Your task to perform on an android device: see sites visited before in the chrome app Image 0: 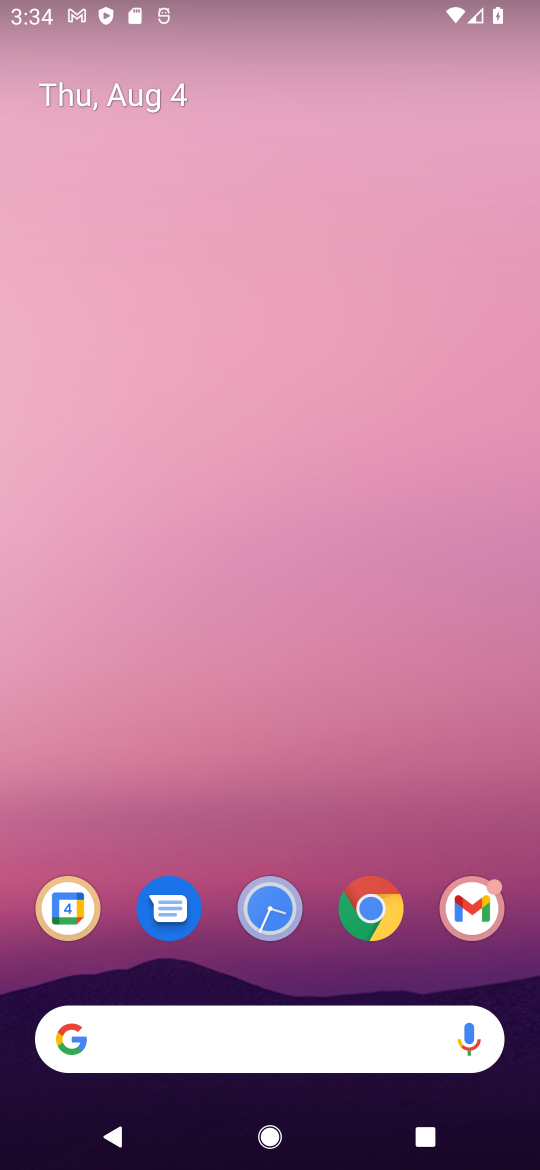
Step 0: click (380, 906)
Your task to perform on an android device: see sites visited before in the chrome app Image 1: 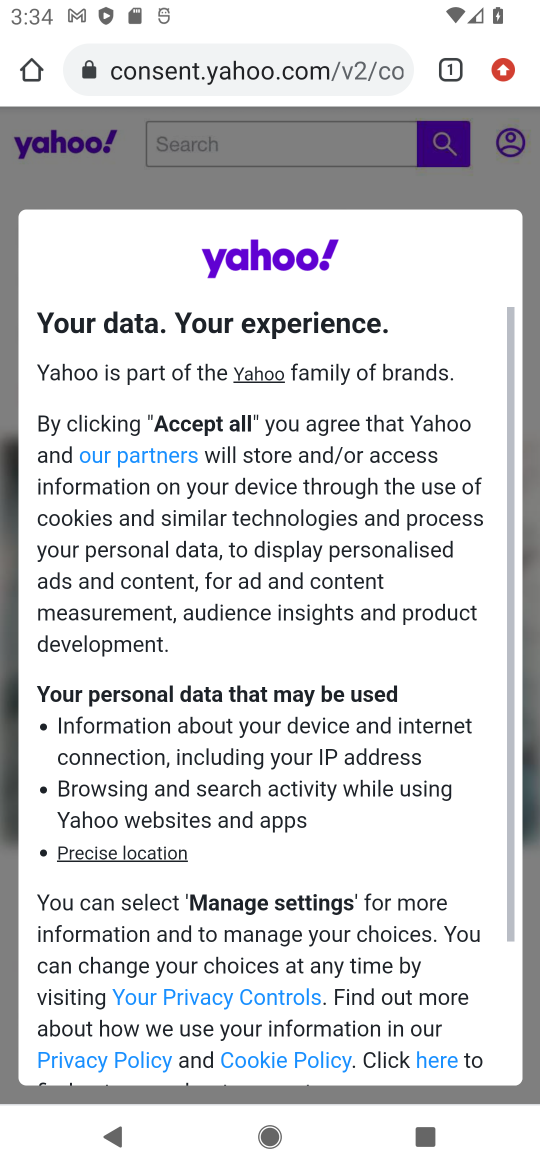
Step 1: click (503, 66)
Your task to perform on an android device: see sites visited before in the chrome app Image 2: 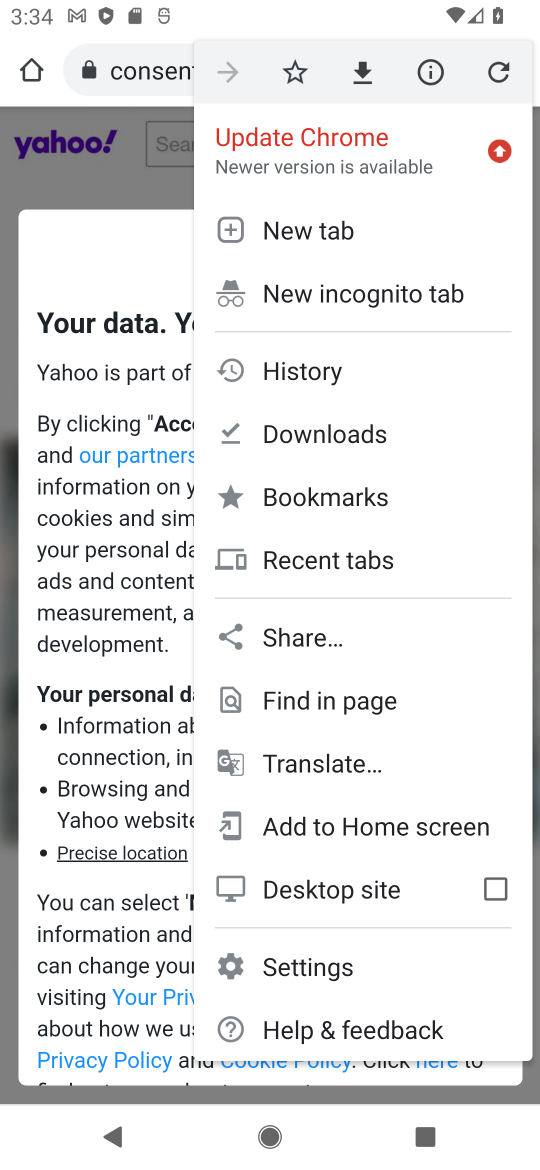
Step 2: click (357, 367)
Your task to perform on an android device: see sites visited before in the chrome app Image 3: 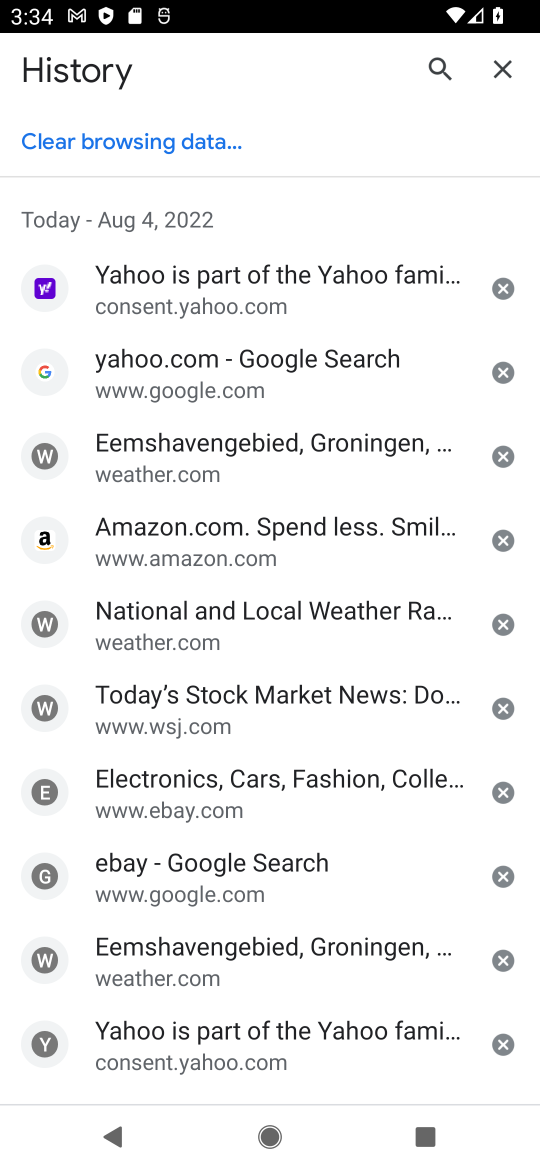
Step 3: task complete